Your task to perform on an android device: set the stopwatch Image 0: 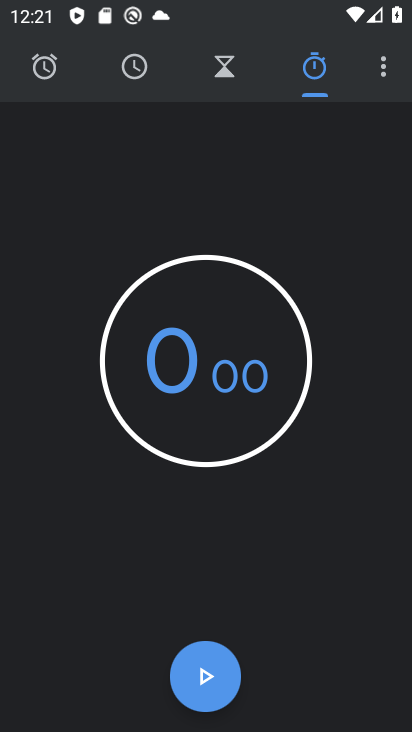
Step 0: click (315, 66)
Your task to perform on an android device: set the stopwatch Image 1: 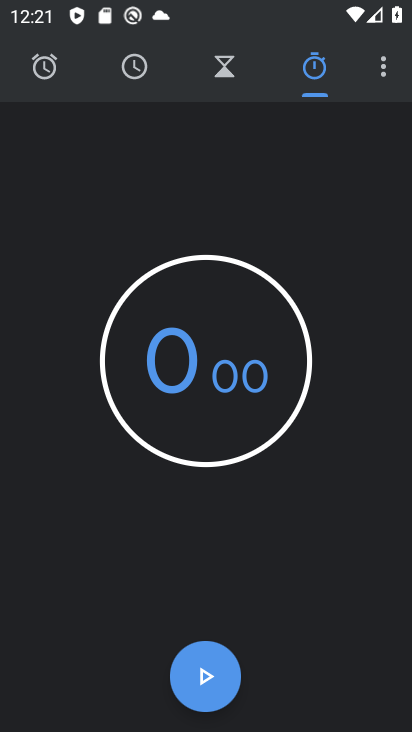
Step 1: task complete